Your task to perform on an android device: Open Maps and search for coffee Image 0: 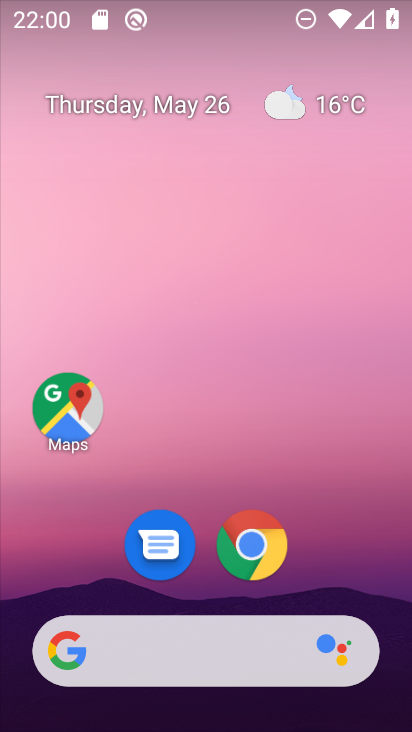
Step 0: click (38, 399)
Your task to perform on an android device: Open Maps and search for coffee Image 1: 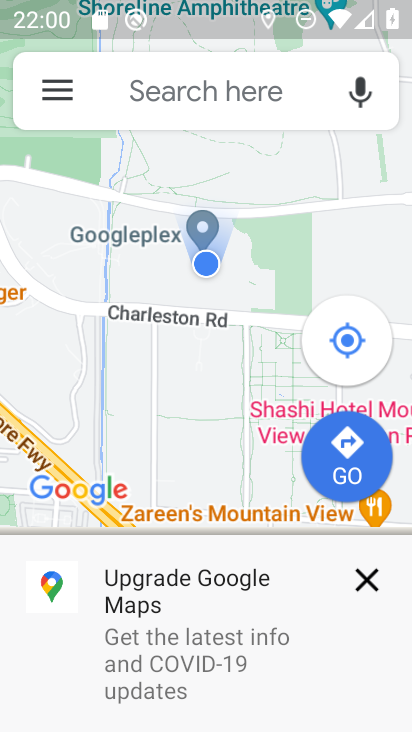
Step 1: click (163, 105)
Your task to perform on an android device: Open Maps and search for coffee Image 2: 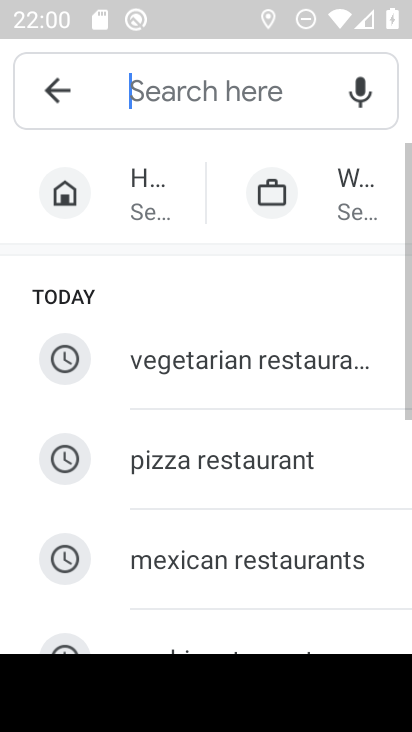
Step 2: drag from (272, 506) to (309, 120)
Your task to perform on an android device: Open Maps and search for coffee Image 3: 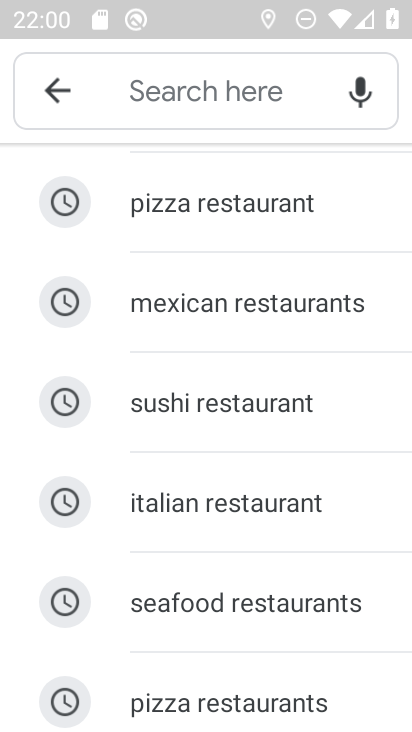
Step 3: drag from (264, 688) to (284, 244)
Your task to perform on an android device: Open Maps and search for coffee Image 4: 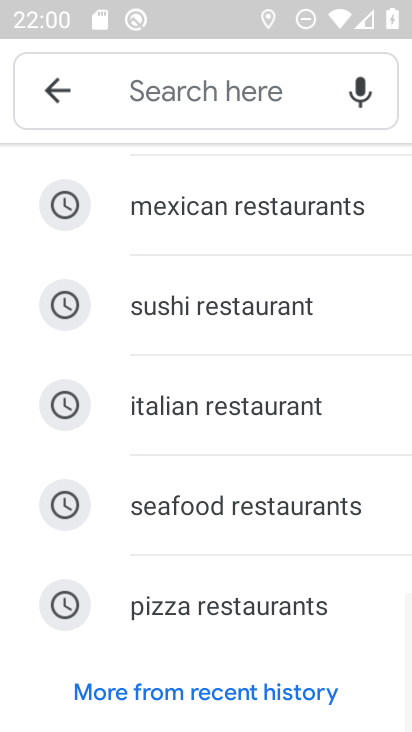
Step 4: click (239, 107)
Your task to perform on an android device: Open Maps and search for coffee Image 5: 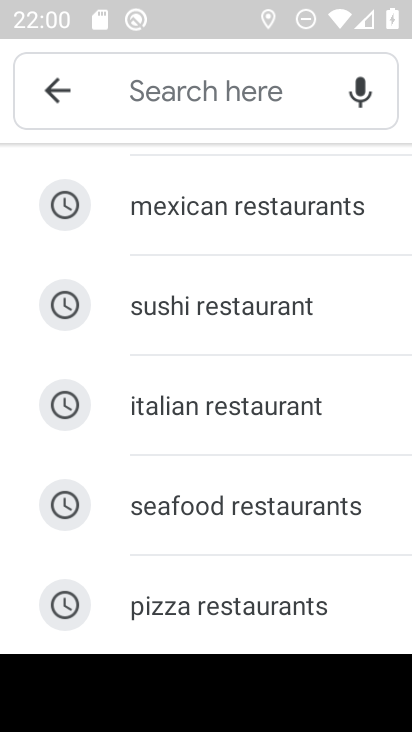
Step 5: type "coffee"
Your task to perform on an android device: Open Maps and search for coffee Image 6: 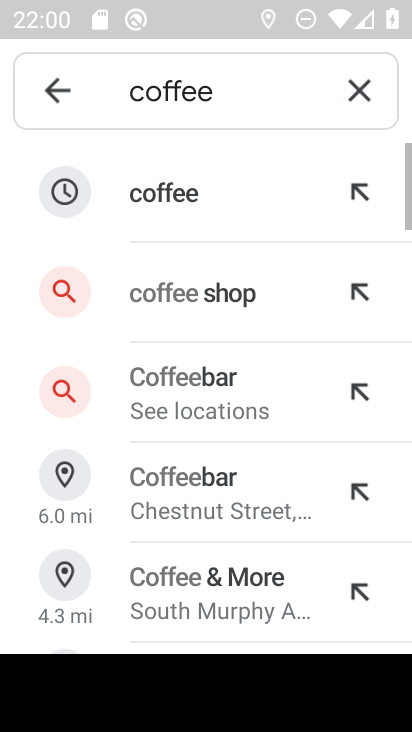
Step 6: click (165, 212)
Your task to perform on an android device: Open Maps and search for coffee Image 7: 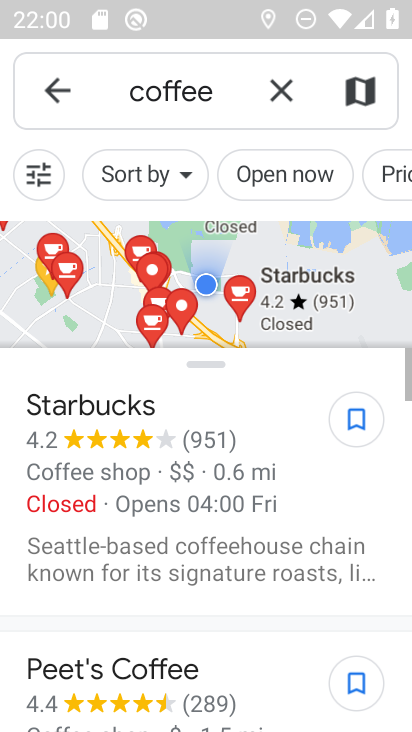
Step 7: task complete